Your task to perform on an android device: turn off translation in the chrome app Image 0: 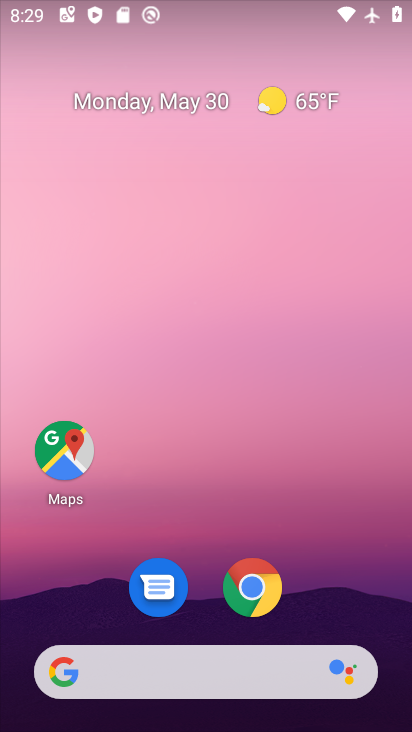
Step 0: press home button
Your task to perform on an android device: turn off translation in the chrome app Image 1: 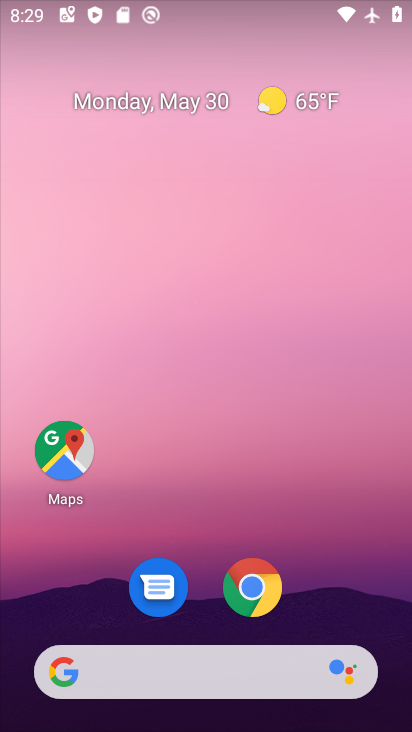
Step 1: click (261, 578)
Your task to perform on an android device: turn off translation in the chrome app Image 2: 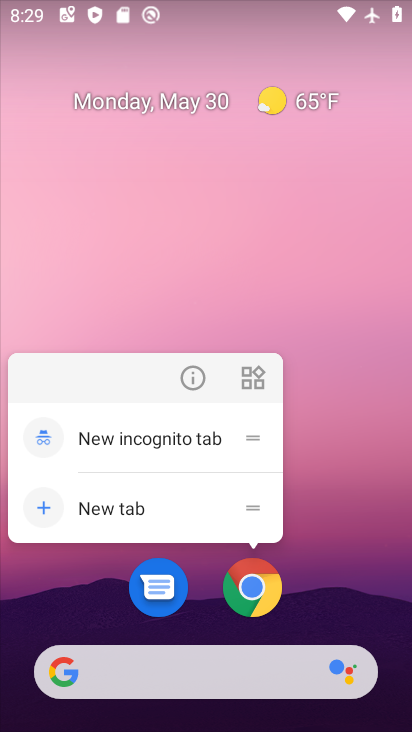
Step 2: click (238, 605)
Your task to perform on an android device: turn off translation in the chrome app Image 3: 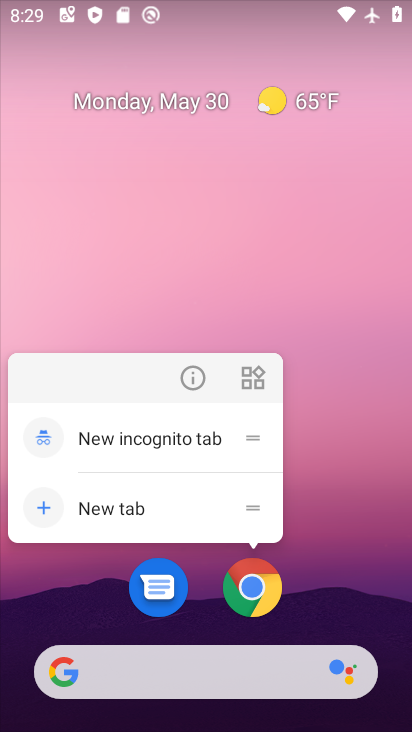
Step 3: click (254, 588)
Your task to perform on an android device: turn off translation in the chrome app Image 4: 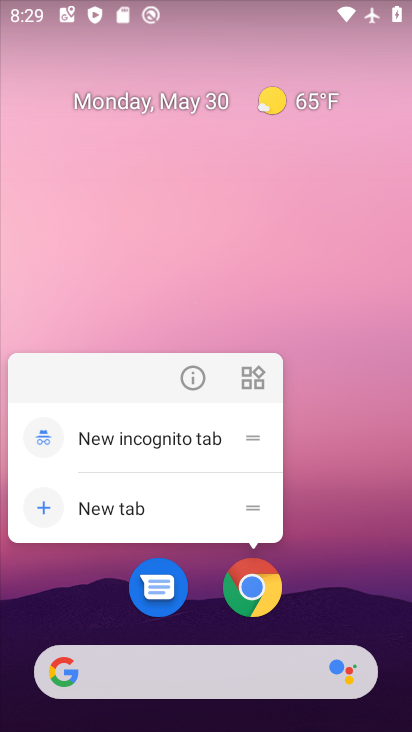
Step 4: click (254, 588)
Your task to perform on an android device: turn off translation in the chrome app Image 5: 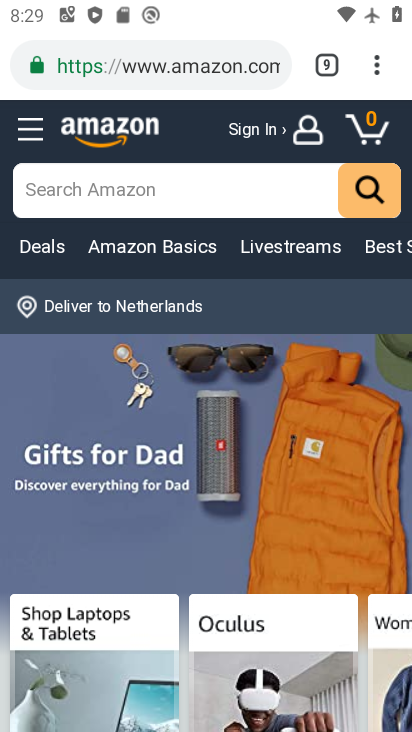
Step 5: drag from (373, 68) to (215, 639)
Your task to perform on an android device: turn off translation in the chrome app Image 6: 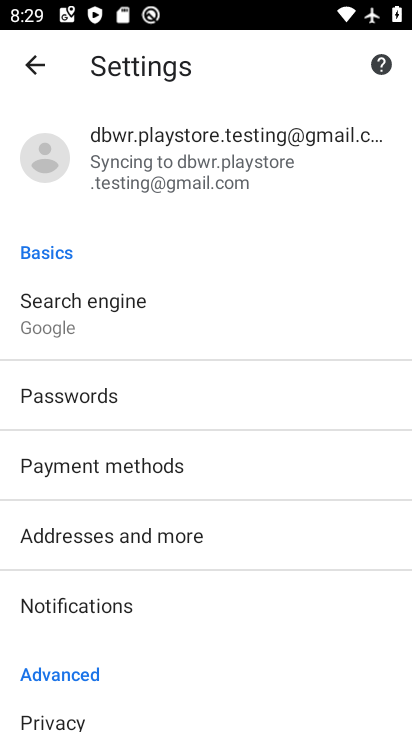
Step 6: drag from (202, 656) to (222, 128)
Your task to perform on an android device: turn off translation in the chrome app Image 7: 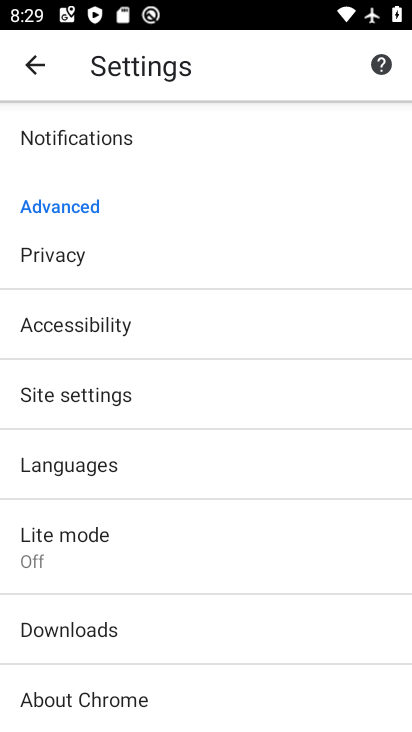
Step 7: click (85, 458)
Your task to perform on an android device: turn off translation in the chrome app Image 8: 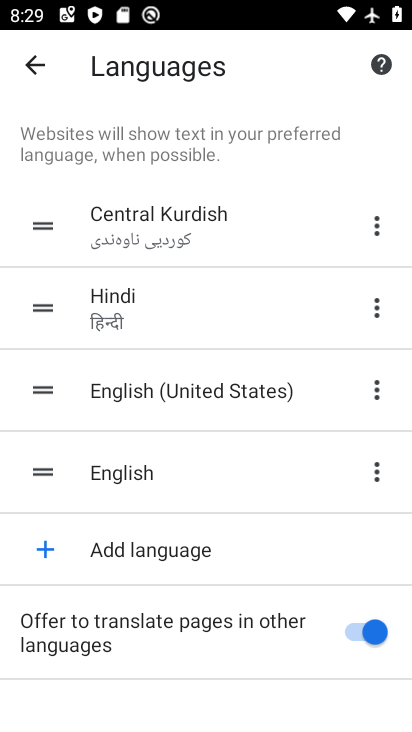
Step 8: click (360, 627)
Your task to perform on an android device: turn off translation in the chrome app Image 9: 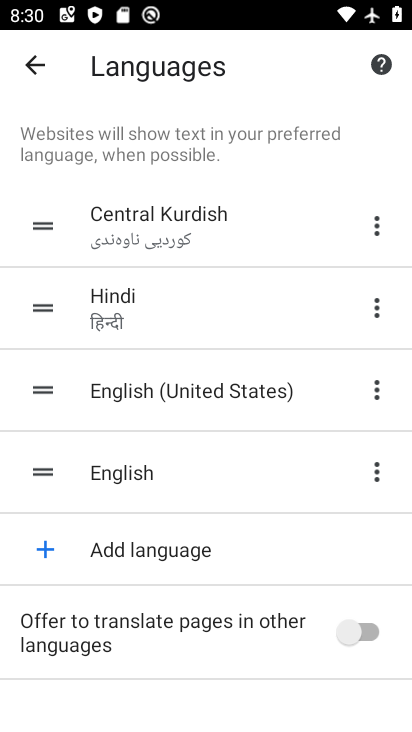
Step 9: task complete